Your task to perform on an android device: Go to ESPN.com Image 0: 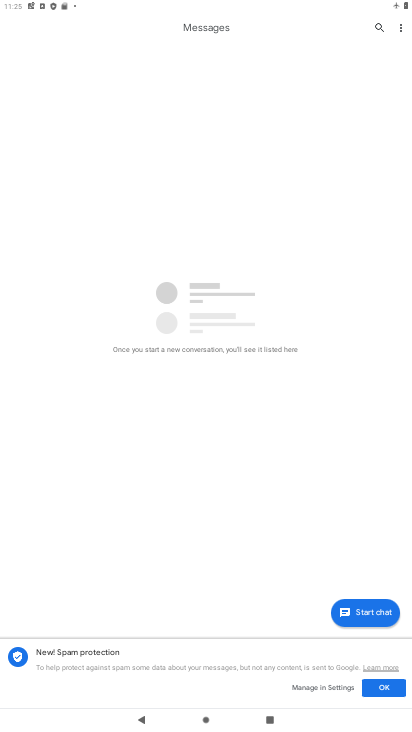
Step 0: press home button
Your task to perform on an android device: Go to ESPN.com Image 1: 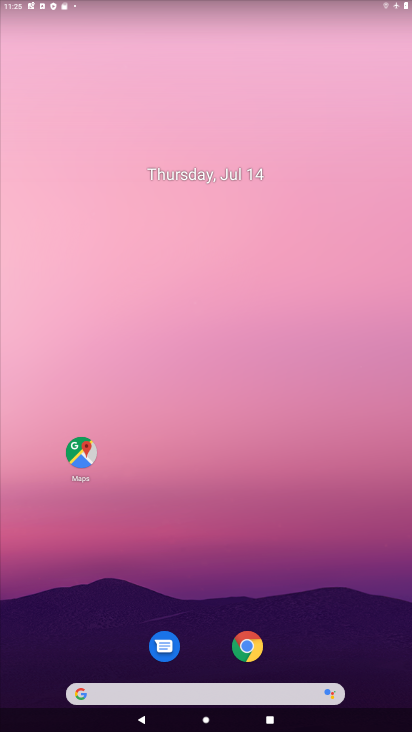
Step 1: click (244, 642)
Your task to perform on an android device: Go to ESPN.com Image 2: 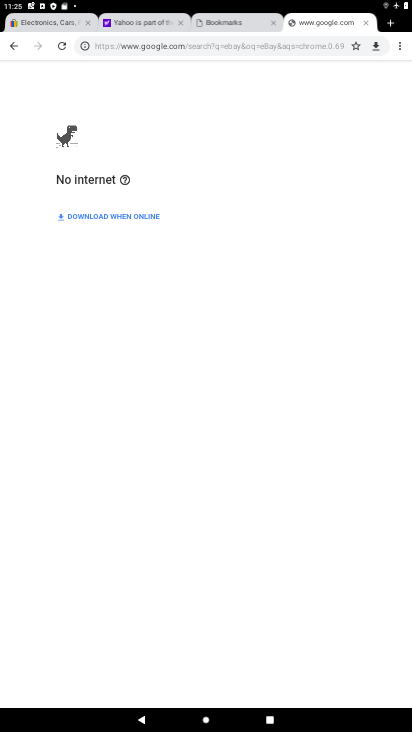
Step 2: click (390, 19)
Your task to perform on an android device: Go to ESPN.com Image 3: 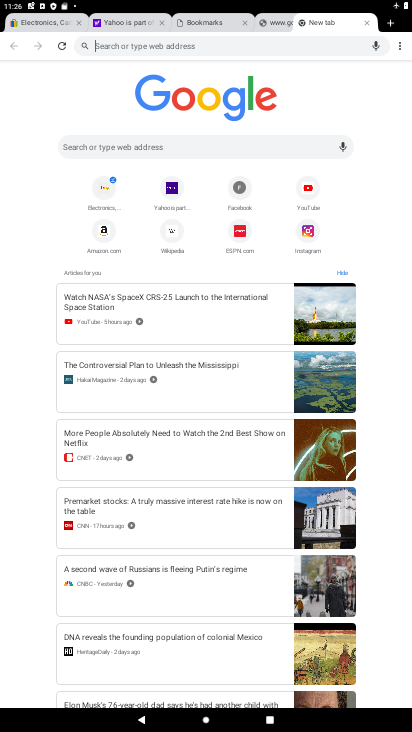
Step 3: click (232, 235)
Your task to perform on an android device: Go to ESPN.com Image 4: 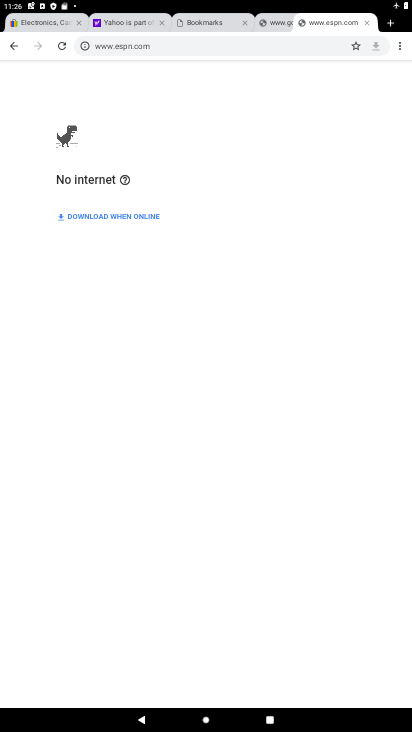
Step 4: task complete